Your task to perform on an android device: clear history in the chrome app Image 0: 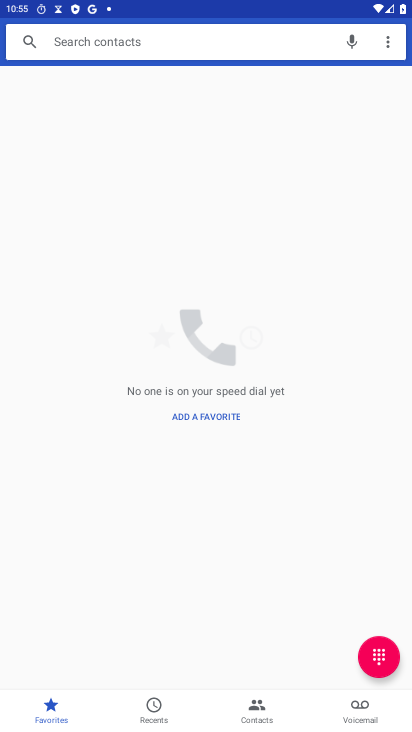
Step 0: press home button
Your task to perform on an android device: clear history in the chrome app Image 1: 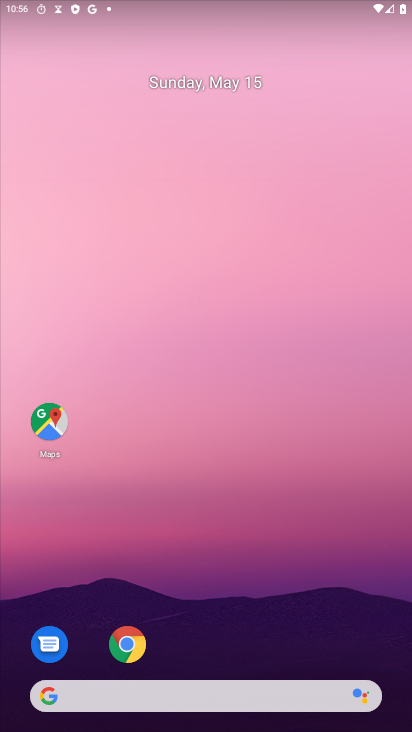
Step 1: click (138, 644)
Your task to perform on an android device: clear history in the chrome app Image 2: 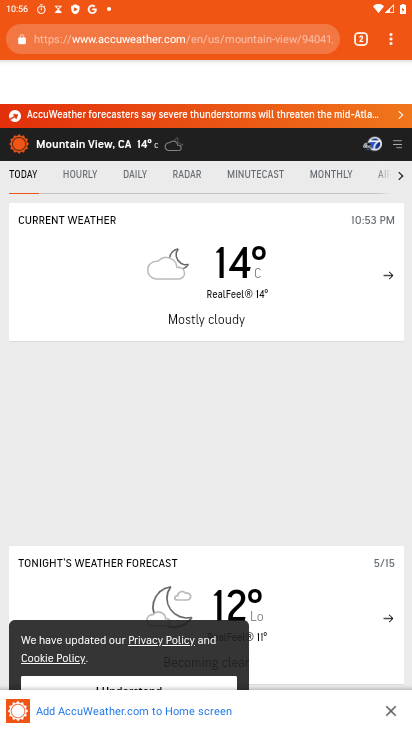
Step 2: click (360, 40)
Your task to perform on an android device: clear history in the chrome app Image 3: 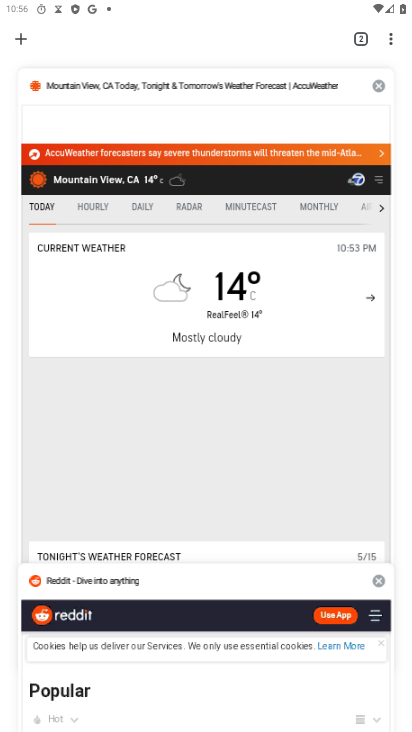
Step 3: click (247, 296)
Your task to perform on an android device: clear history in the chrome app Image 4: 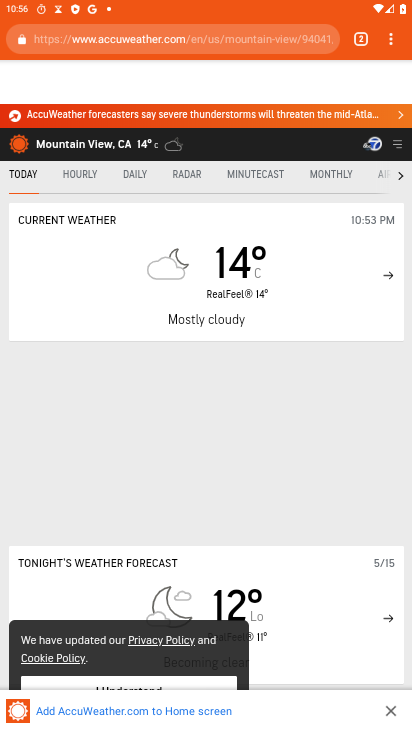
Step 4: click (395, 41)
Your task to perform on an android device: clear history in the chrome app Image 5: 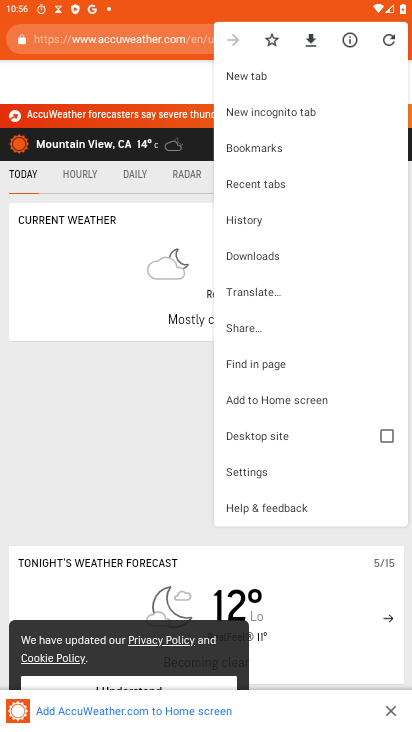
Step 5: click (262, 222)
Your task to perform on an android device: clear history in the chrome app Image 6: 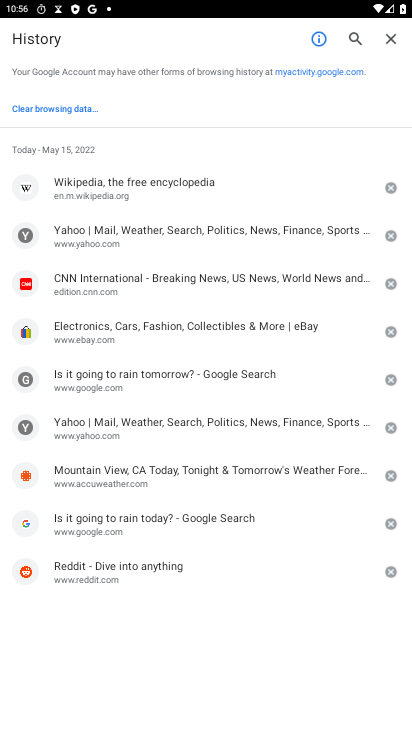
Step 6: click (76, 109)
Your task to perform on an android device: clear history in the chrome app Image 7: 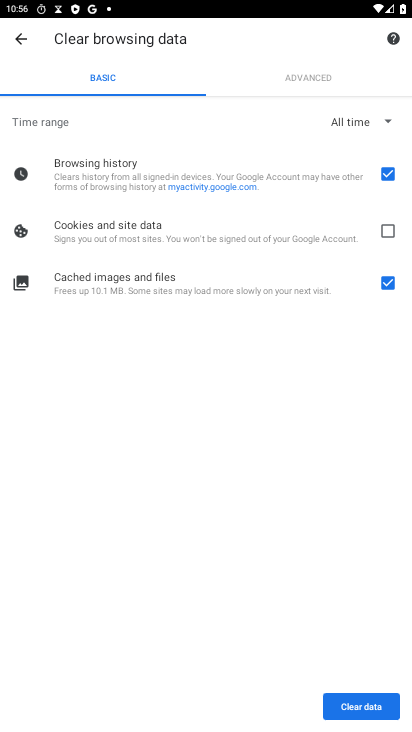
Step 7: click (387, 284)
Your task to perform on an android device: clear history in the chrome app Image 8: 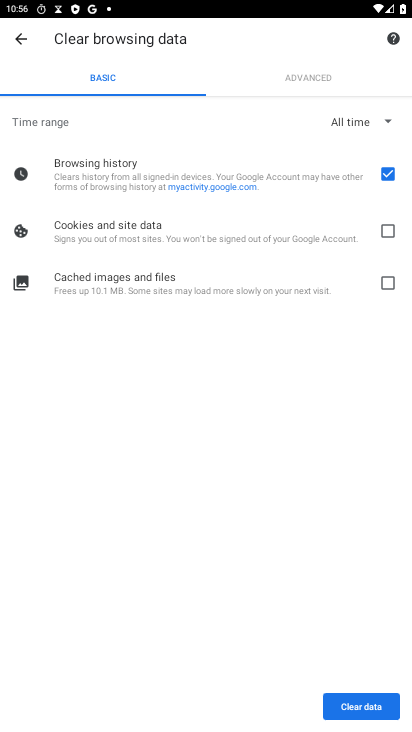
Step 8: click (367, 701)
Your task to perform on an android device: clear history in the chrome app Image 9: 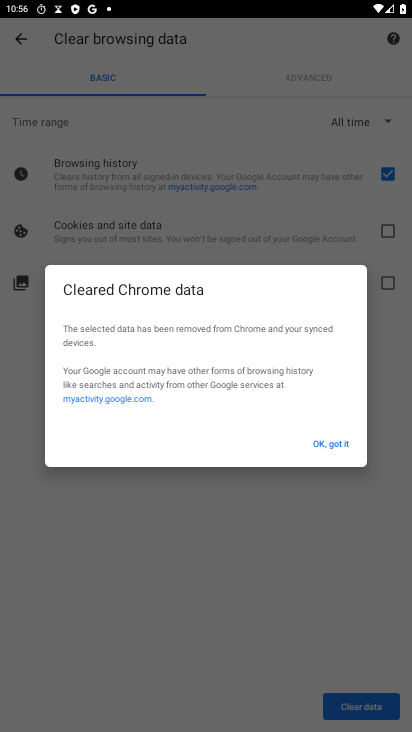
Step 9: click (336, 446)
Your task to perform on an android device: clear history in the chrome app Image 10: 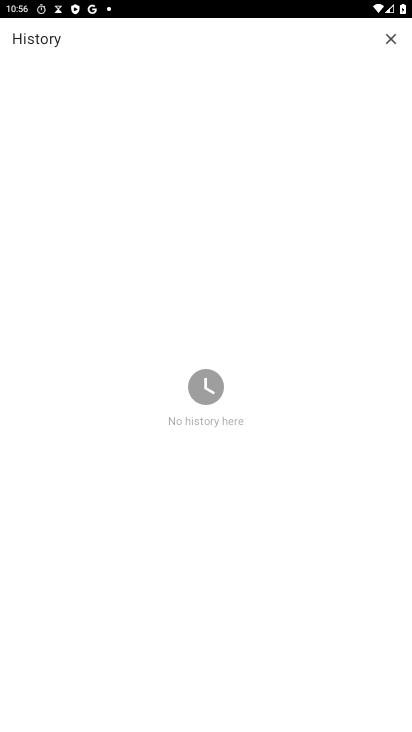
Step 10: task complete